Your task to perform on an android device: clear all cookies in the chrome app Image 0: 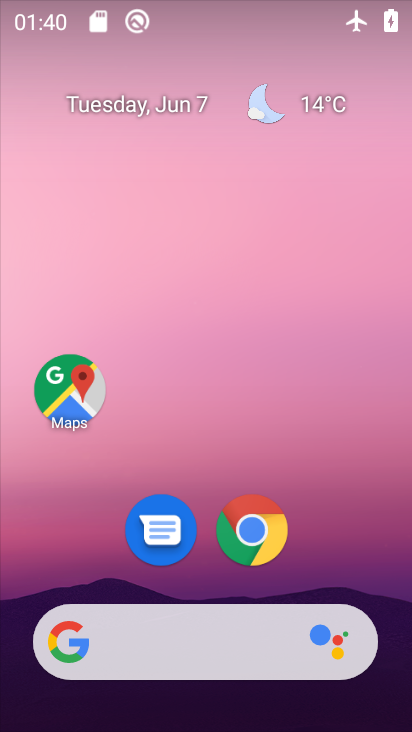
Step 0: drag from (365, 563) to (308, 255)
Your task to perform on an android device: clear all cookies in the chrome app Image 1: 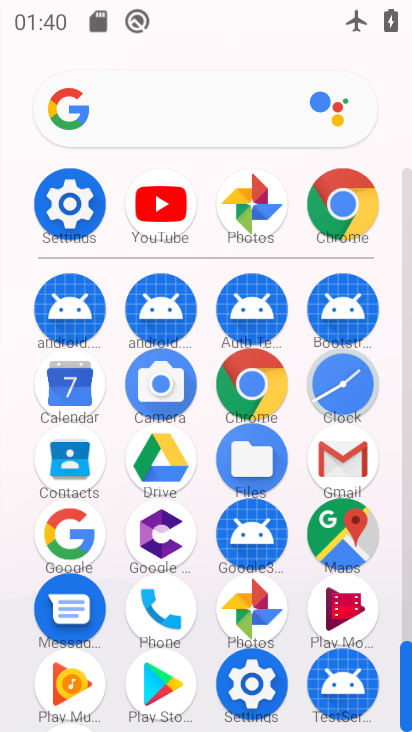
Step 1: click (249, 378)
Your task to perform on an android device: clear all cookies in the chrome app Image 2: 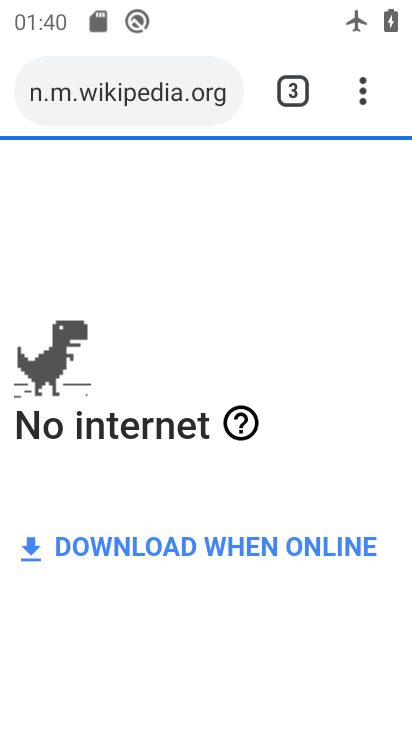
Step 2: click (360, 90)
Your task to perform on an android device: clear all cookies in the chrome app Image 3: 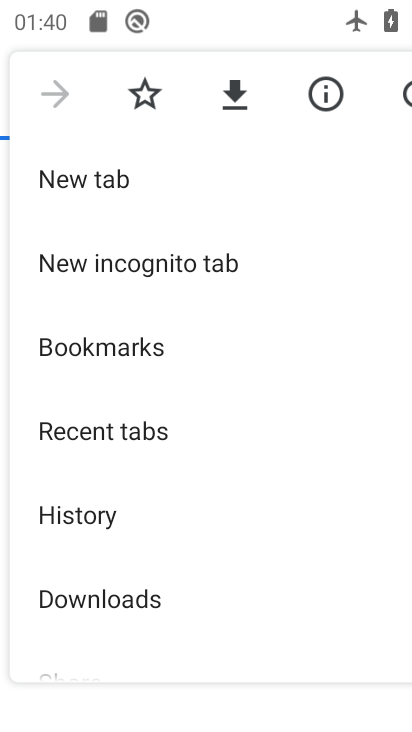
Step 3: drag from (168, 605) to (203, 201)
Your task to perform on an android device: clear all cookies in the chrome app Image 4: 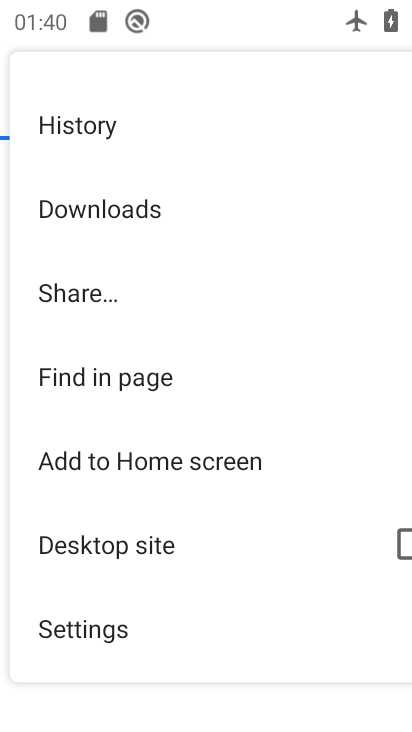
Step 4: click (140, 628)
Your task to perform on an android device: clear all cookies in the chrome app Image 5: 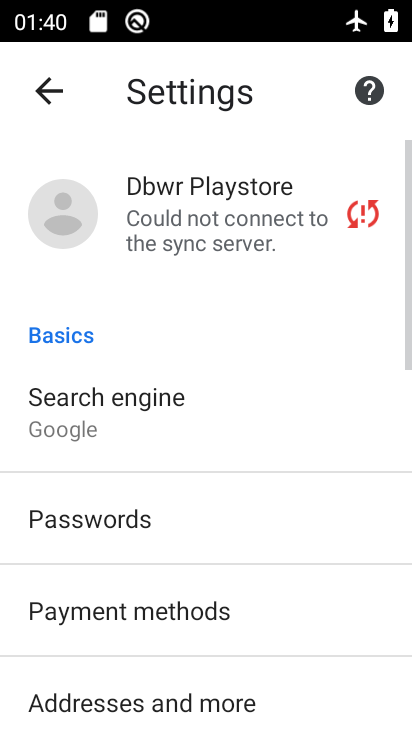
Step 5: drag from (132, 546) to (159, 344)
Your task to perform on an android device: clear all cookies in the chrome app Image 6: 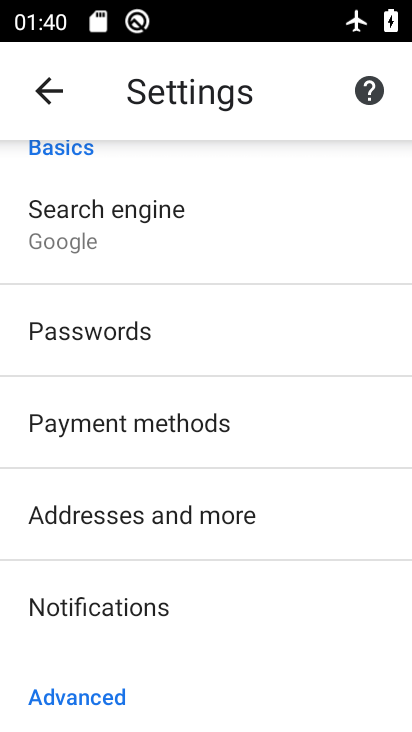
Step 6: drag from (135, 661) to (194, 353)
Your task to perform on an android device: clear all cookies in the chrome app Image 7: 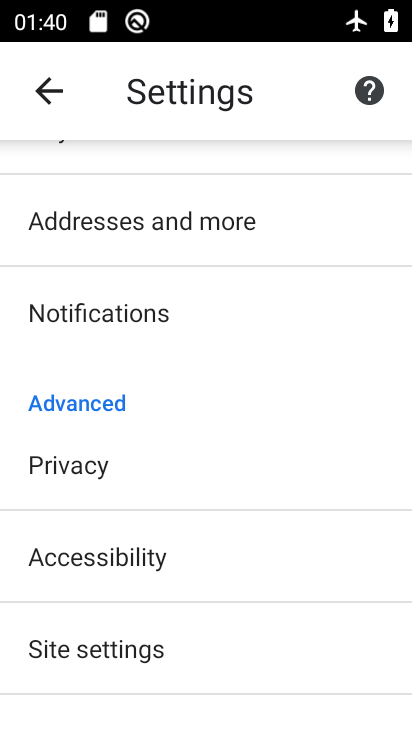
Step 7: drag from (158, 567) to (178, 279)
Your task to perform on an android device: clear all cookies in the chrome app Image 8: 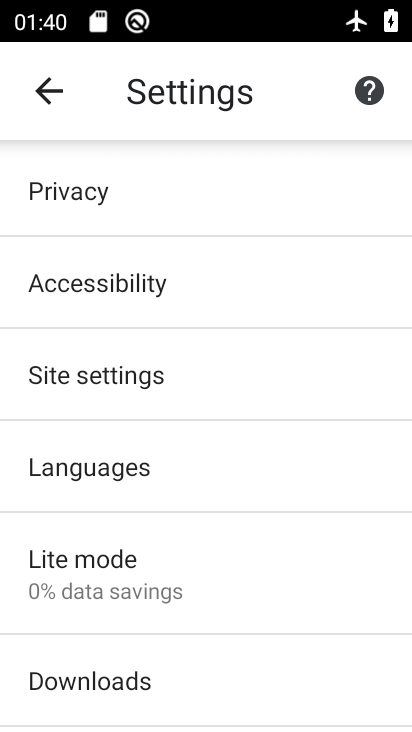
Step 8: click (132, 376)
Your task to perform on an android device: clear all cookies in the chrome app Image 9: 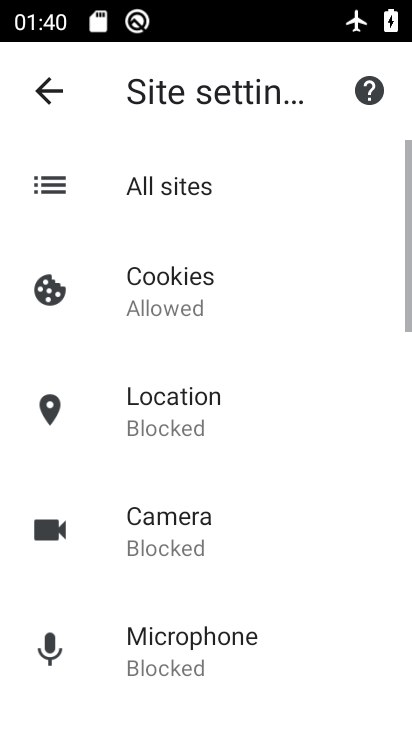
Step 9: click (40, 88)
Your task to perform on an android device: clear all cookies in the chrome app Image 10: 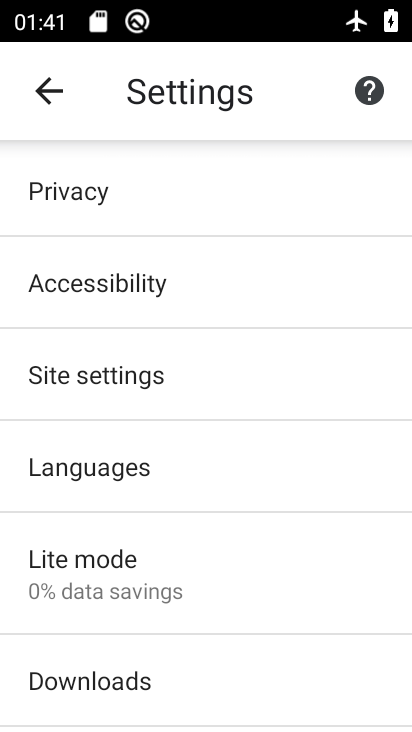
Step 10: click (125, 198)
Your task to perform on an android device: clear all cookies in the chrome app Image 11: 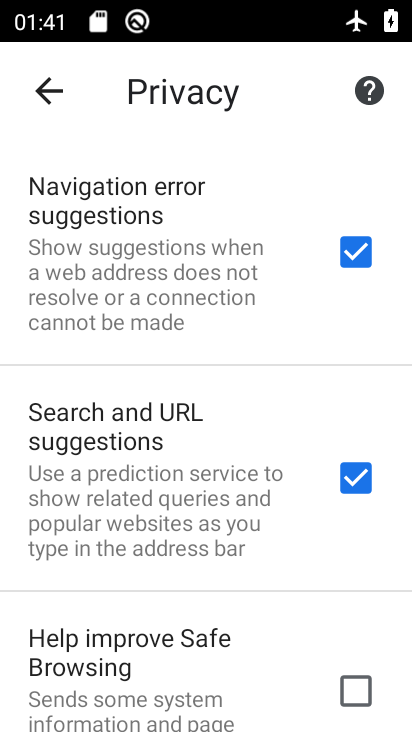
Step 11: drag from (215, 584) to (251, 202)
Your task to perform on an android device: clear all cookies in the chrome app Image 12: 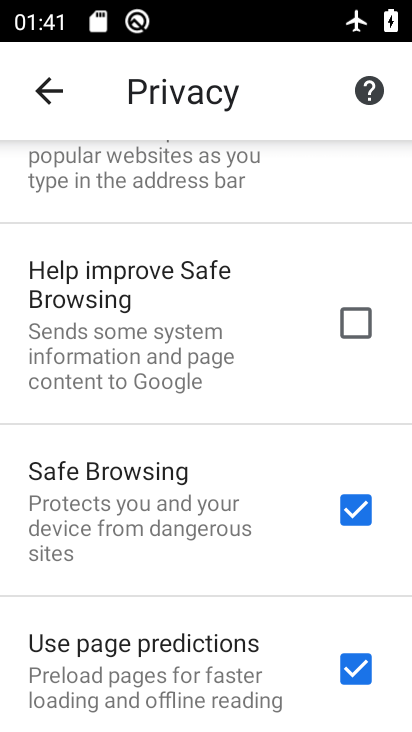
Step 12: drag from (198, 641) to (244, 259)
Your task to perform on an android device: clear all cookies in the chrome app Image 13: 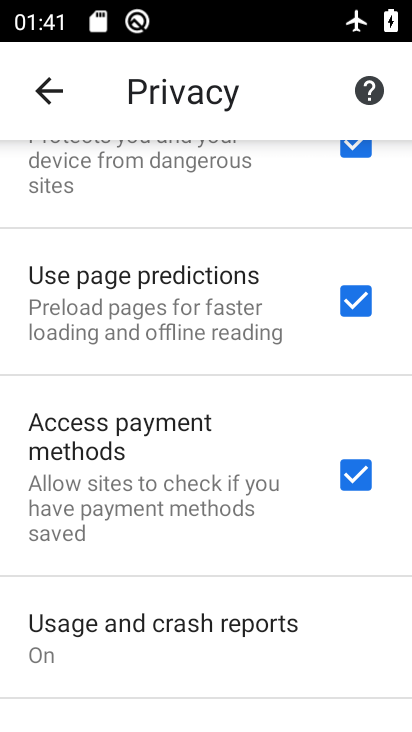
Step 13: drag from (174, 578) to (227, 232)
Your task to perform on an android device: clear all cookies in the chrome app Image 14: 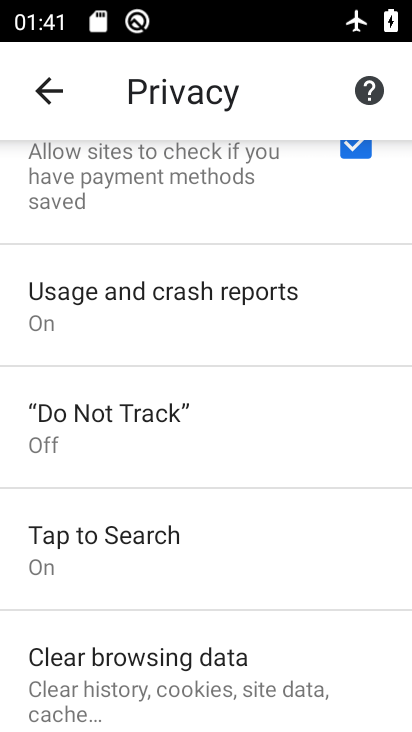
Step 14: drag from (200, 669) to (250, 287)
Your task to perform on an android device: clear all cookies in the chrome app Image 15: 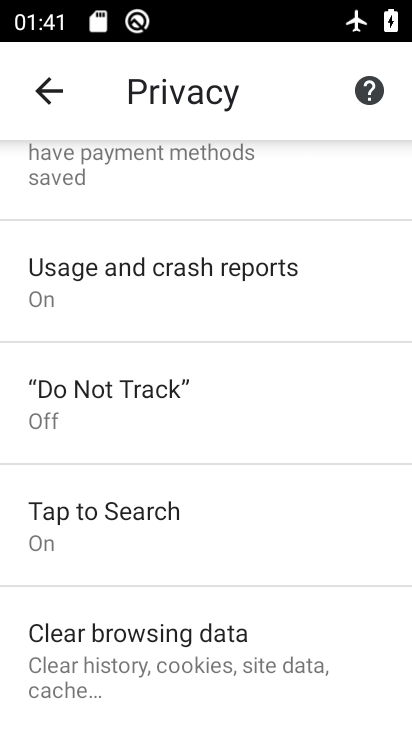
Step 15: click (195, 661)
Your task to perform on an android device: clear all cookies in the chrome app Image 16: 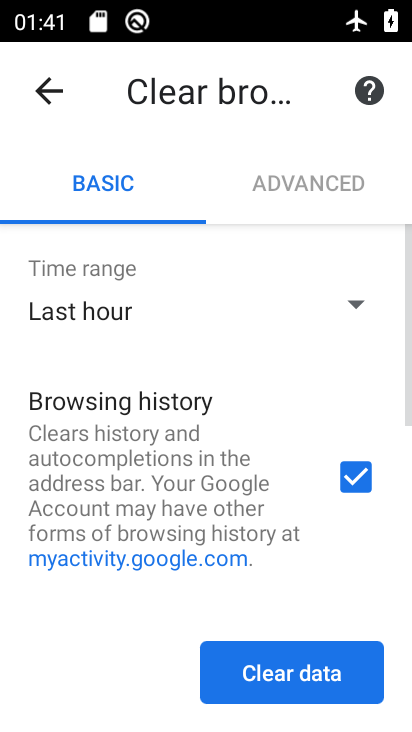
Step 16: click (242, 675)
Your task to perform on an android device: clear all cookies in the chrome app Image 17: 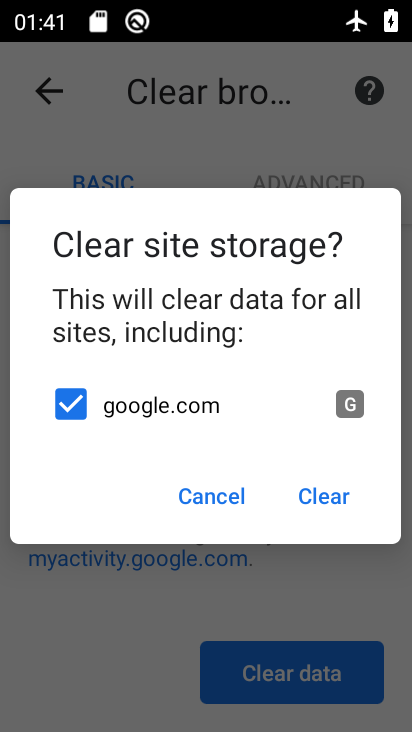
Step 17: click (204, 483)
Your task to perform on an android device: clear all cookies in the chrome app Image 18: 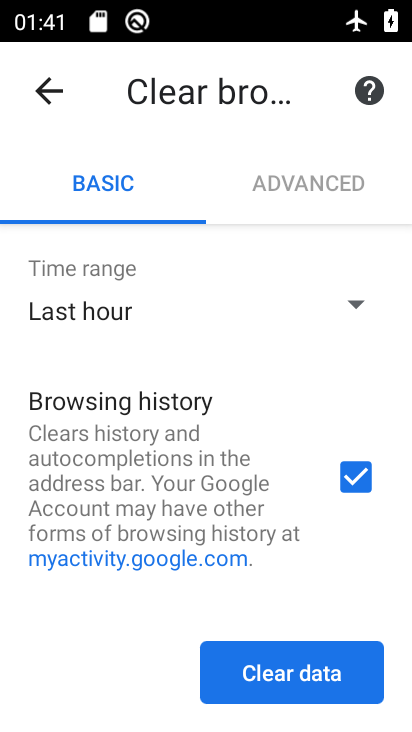
Step 18: drag from (112, 600) to (179, 324)
Your task to perform on an android device: clear all cookies in the chrome app Image 19: 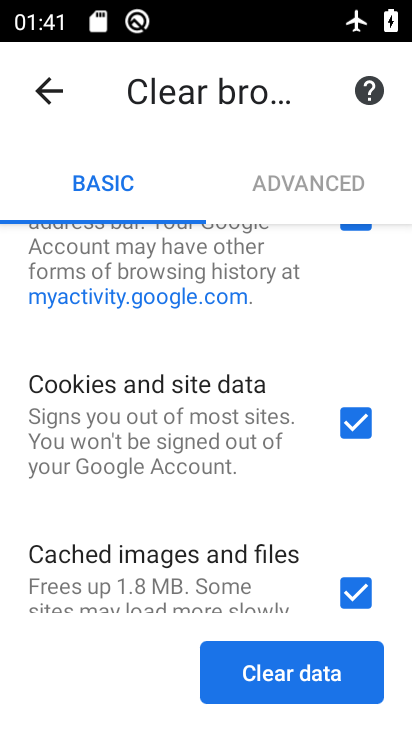
Step 19: drag from (255, 548) to (245, 306)
Your task to perform on an android device: clear all cookies in the chrome app Image 20: 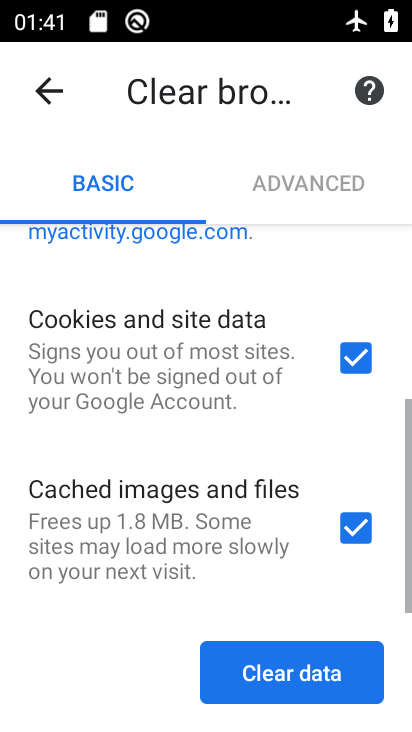
Step 20: drag from (98, 540) to (132, 273)
Your task to perform on an android device: clear all cookies in the chrome app Image 21: 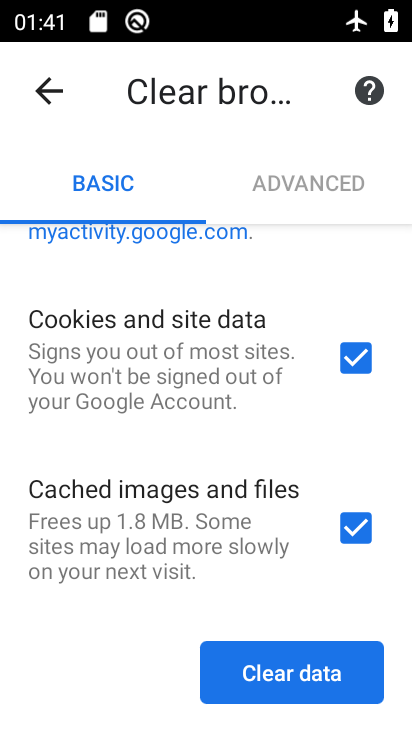
Step 21: click (309, 665)
Your task to perform on an android device: clear all cookies in the chrome app Image 22: 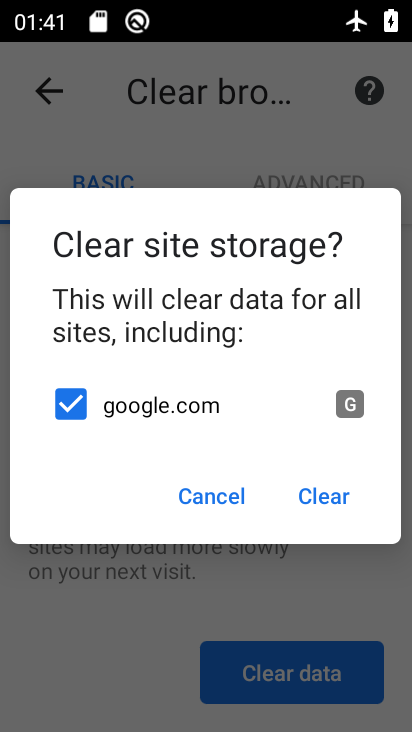
Step 22: click (311, 505)
Your task to perform on an android device: clear all cookies in the chrome app Image 23: 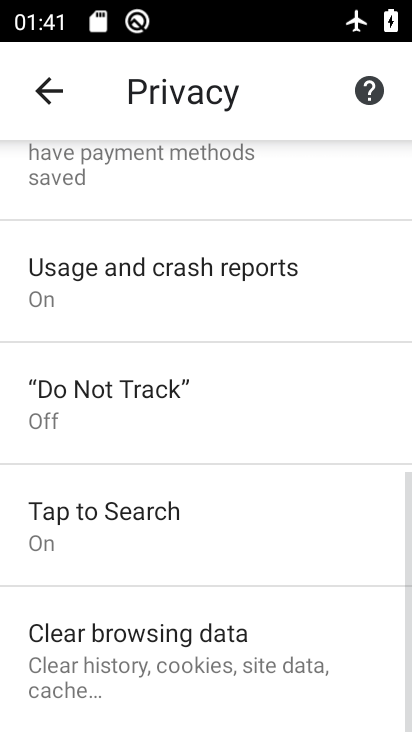
Step 23: task complete